Your task to perform on an android device: Open Wikipedia Image 0: 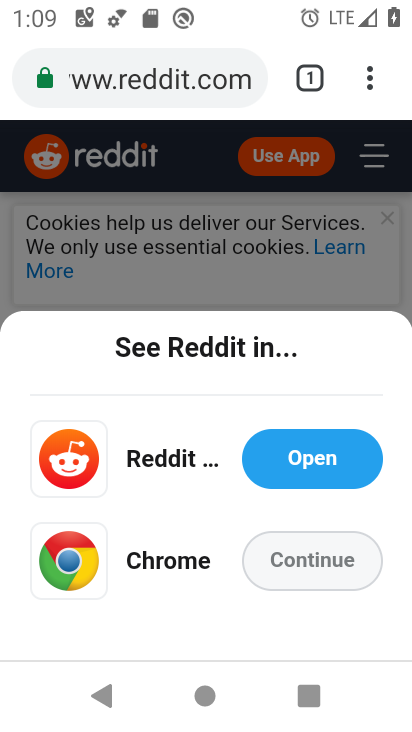
Step 0: press home button
Your task to perform on an android device: Open Wikipedia Image 1: 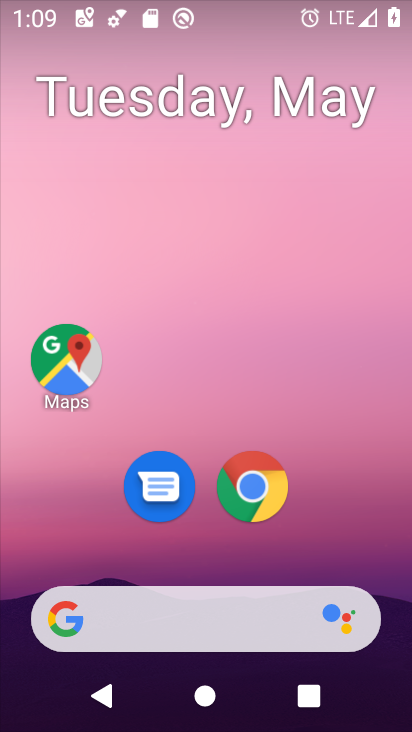
Step 1: click (248, 479)
Your task to perform on an android device: Open Wikipedia Image 2: 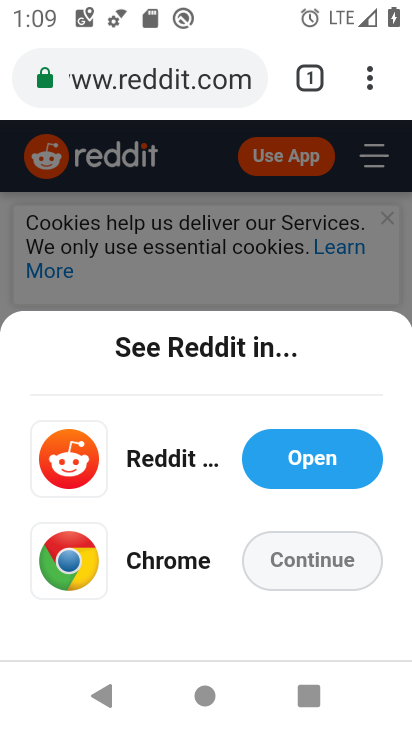
Step 2: click (178, 567)
Your task to perform on an android device: Open Wikipedia Image 3: 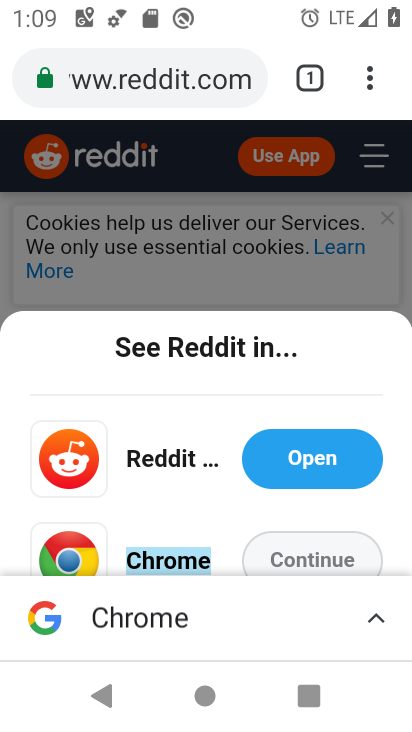
Step 3: click (56, 563)
Your task to perform on an android device: Open Wikipedia Image 4: 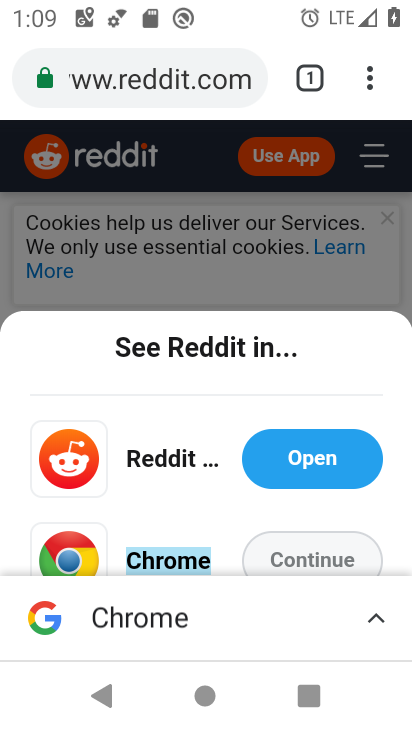
Step 4: click (70, 537)
Your task to perform on an android device: Open Wikipedia Image 5: 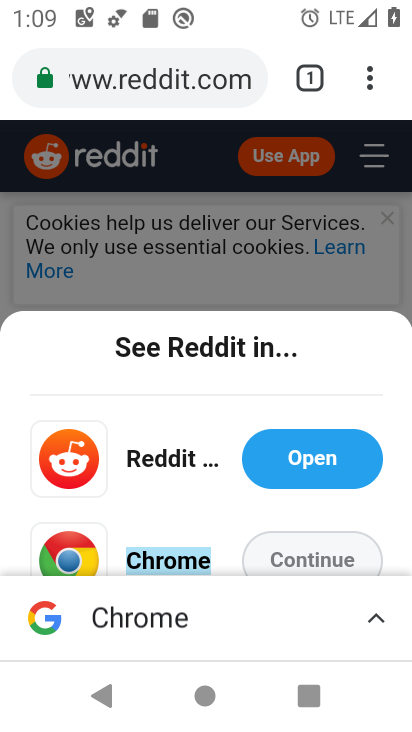
Step 5: click (337, 551)
Your task to perform on an android device: Open Wikipedia Image 6: 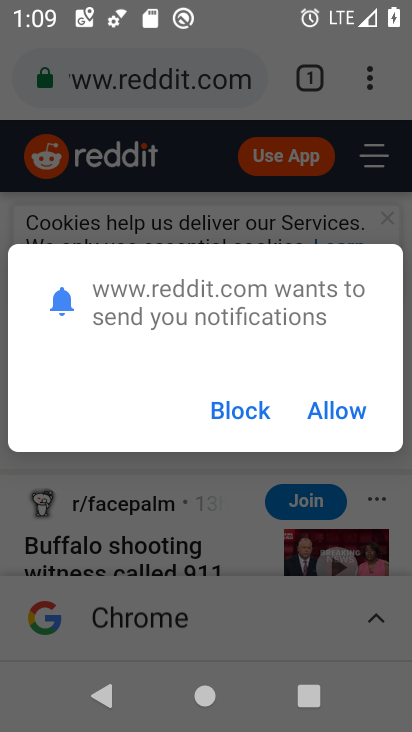
Step 6: click (320, 413)
Your task to perform on an android device: Open Wikipedia Image 7: 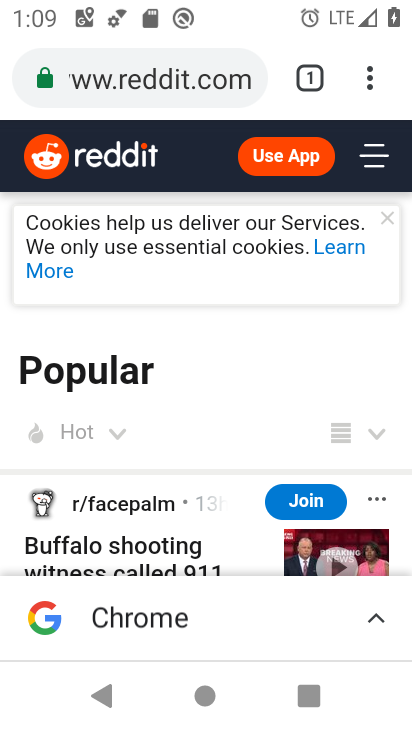
Step 7: click (300, 76)
Your task to perform on an android device: Open Wikipedia Image 8: 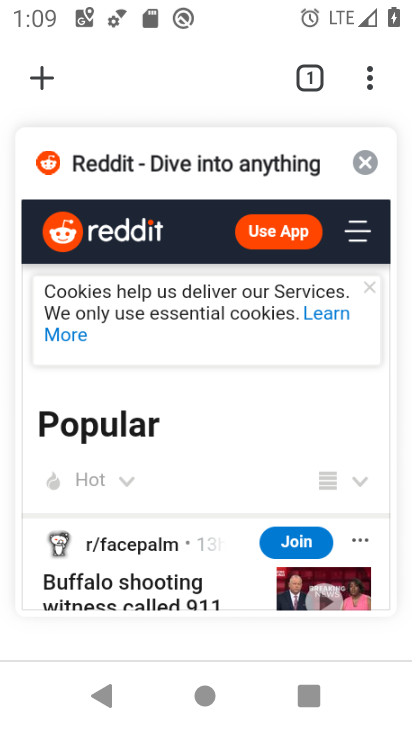
Step 8: click (38, 79)
Your task to perform on an android device: Open Wikipedia Image 9: 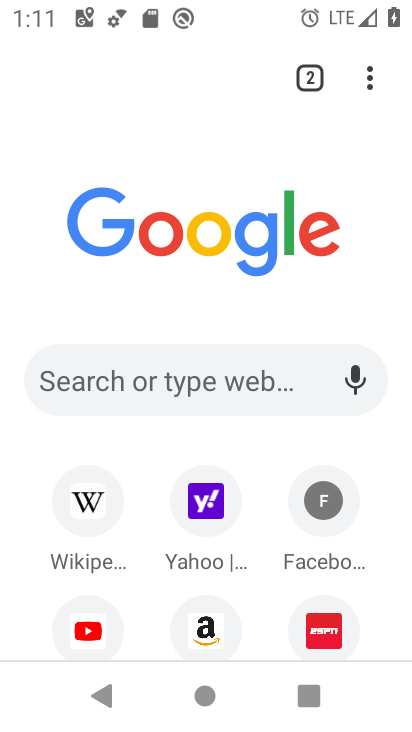
Step 9: click (70, 489)
Your task to perform on an android device: Open Wikipedia Image 10: 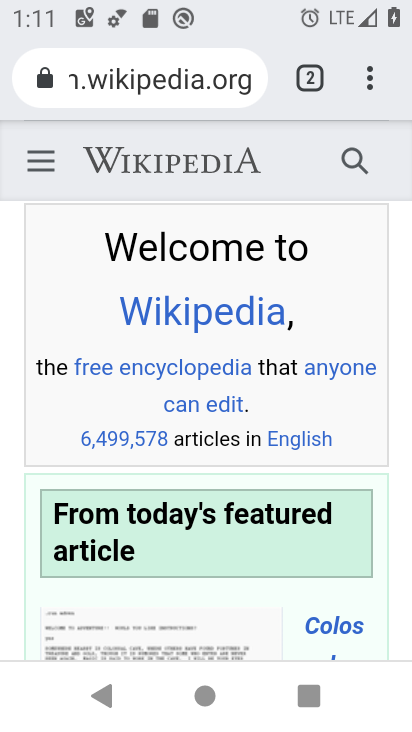
Step 10: task complete